Your task to perform on an android device: Open the calendar and show me this week's events? Image 0: 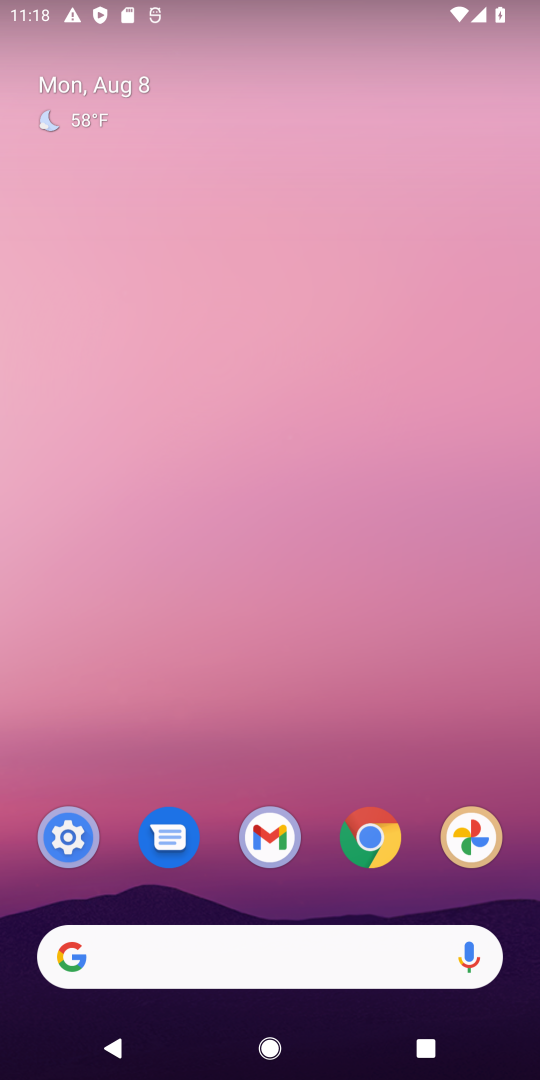
Step 0: press home button
Your task to perform on an android device: Open the calendar and show me this week's events? Image 1: 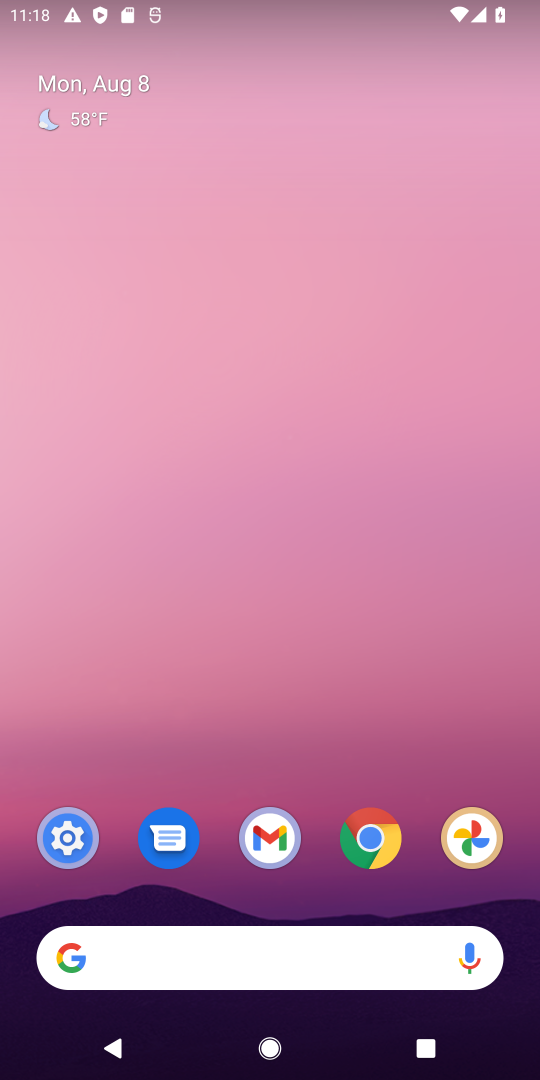
Step 1: drag from (317, 888) to (315, 275)
Your task to perform on an android device: Open the calendar and show me this week's events? Image 2: 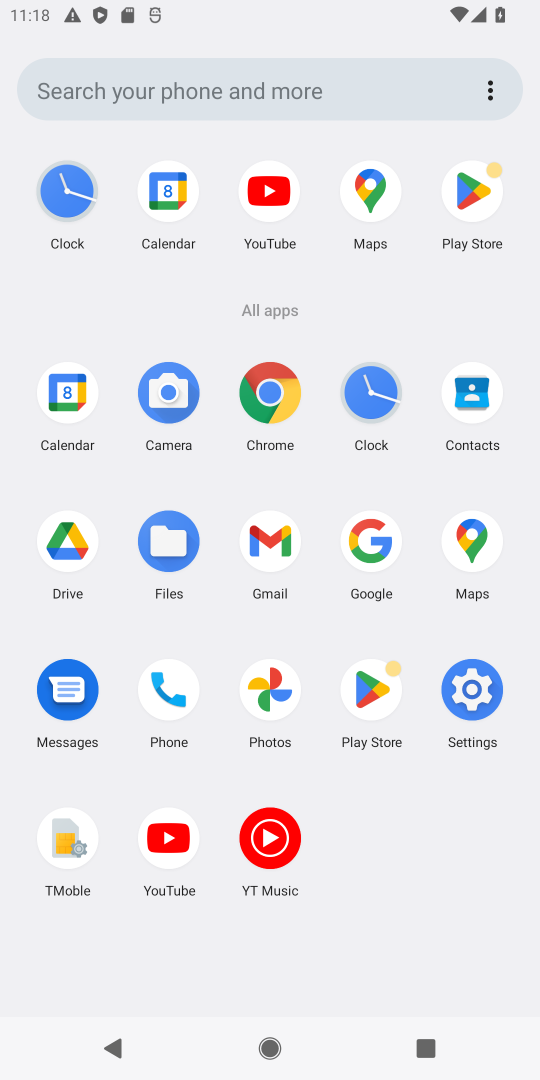
Step 2: click (173, 202)
Your task to perform on an android device: Open the calendar and show me this week's events? Image 3: 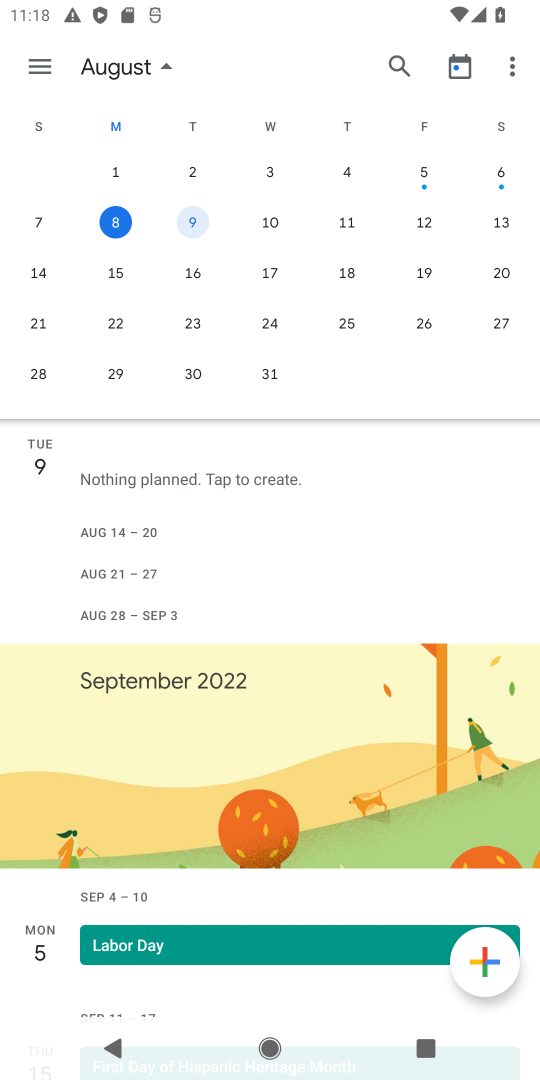
Step 3: click (58, 68)
Your task to perform on an android device: Open the calendar and show me this week's events? Image 4: 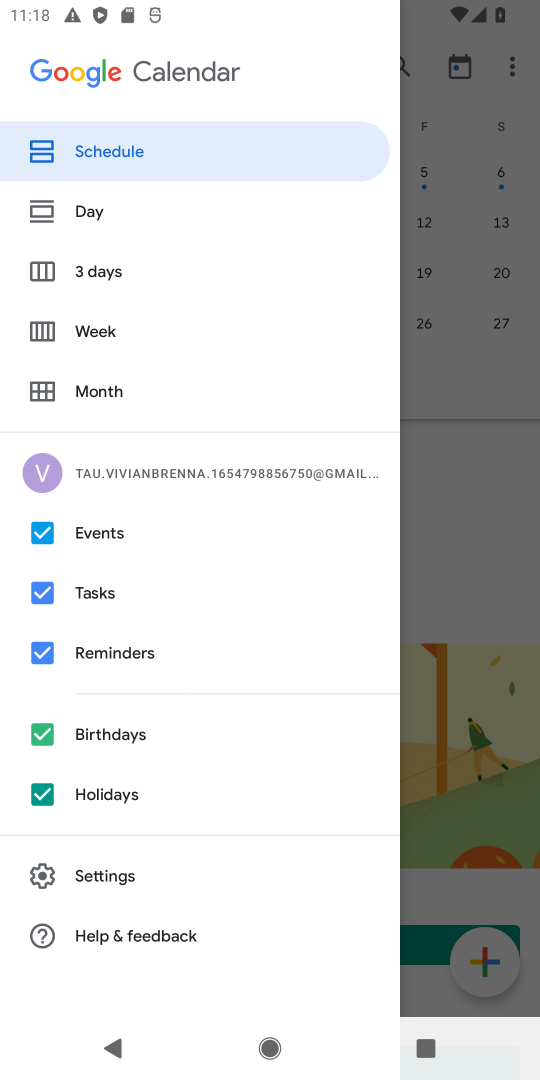
Step 4: click (112, 319)
Your task to perform on an android device: Open the calendar and show me this week's events? Image 5: 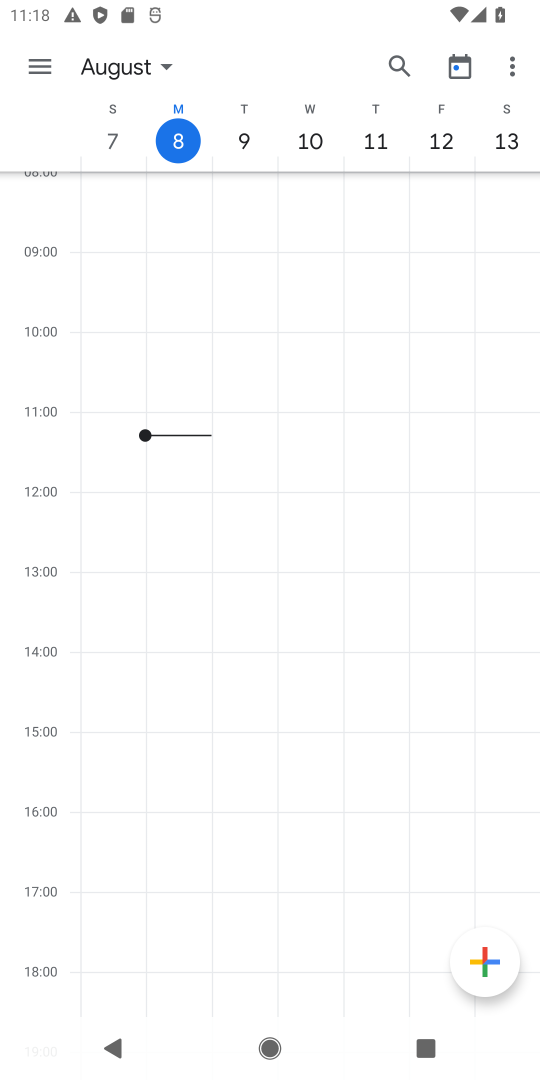
Step 5: task complete